Your task to perform on an android device: toggle wifi Image 0: 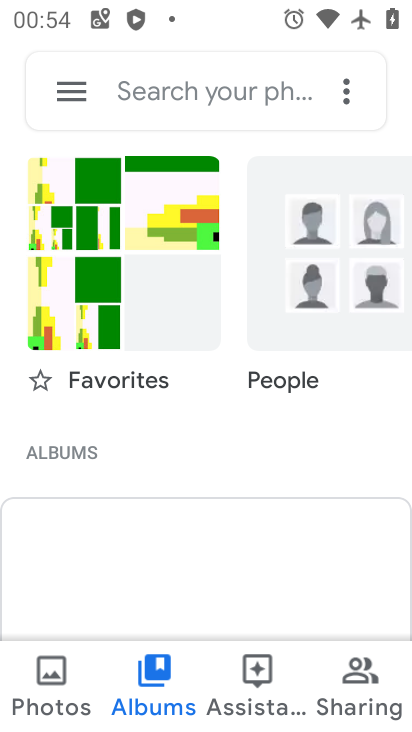
Step 0: press home button
Your task to perform on an android device: toggle wifi Image 1: 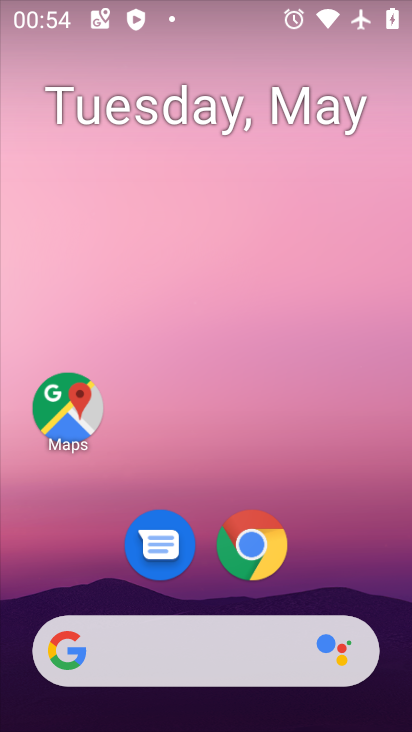
Step 1: drag from (341, 595) to (332, 0)
Your task to perform on an android device: toggle wifi Image 2: 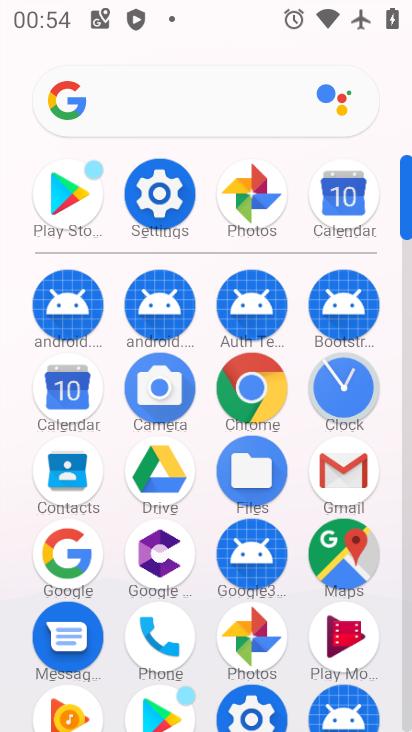
Step 2: click (150, 193)
Your task to perform on an android device: toggle wifi Image 3: 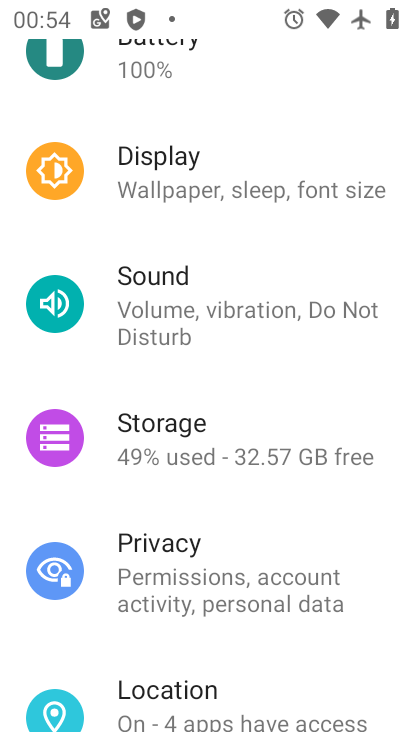
Step 3: drag from (150, 193) to (160, 486)
Your task to perform on an android device: toggle wifi Image 4: 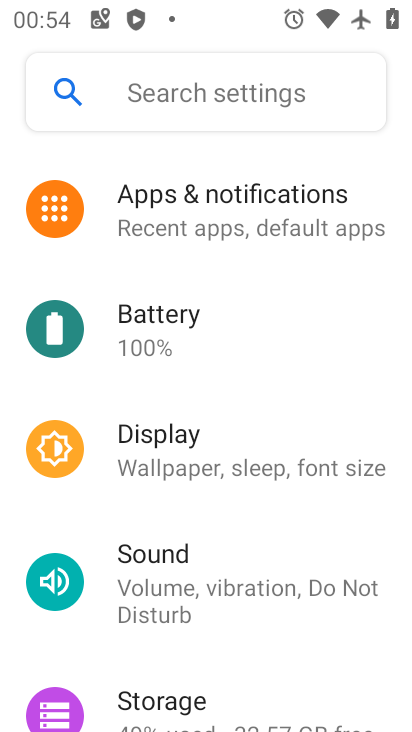
Step 4: drag from (189, 289) to (155, 563)
Your task to perform on an android device: toggle wifi Image 5: 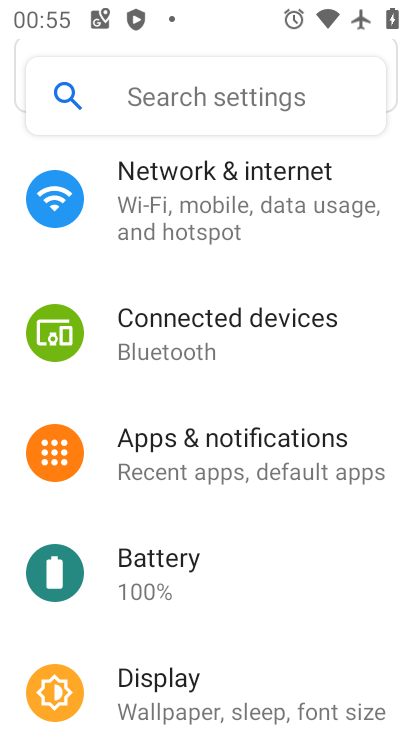
Step 5: click (188, 207)
Your task to perform on an android device: toggle wifi Image 6: 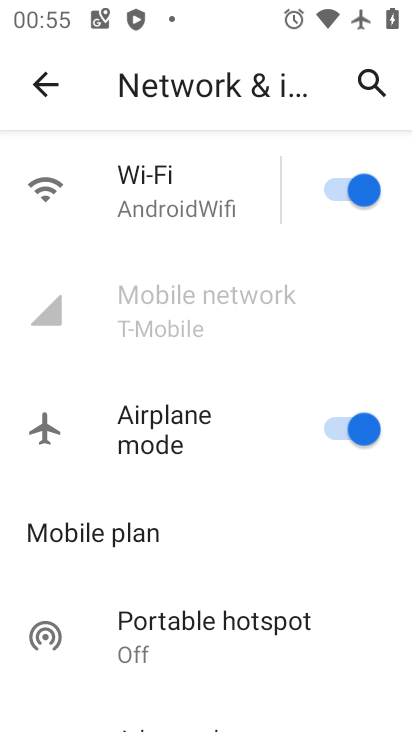
Step 6: click (321, 180)
Your task to perform on an android device: toggle wifi Image 7: 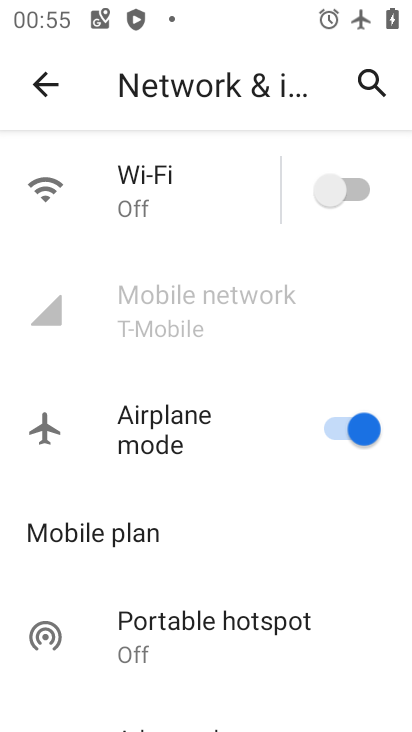
Step 7: task complete